Your task to perform on an android device: Go to display settings Image 0: 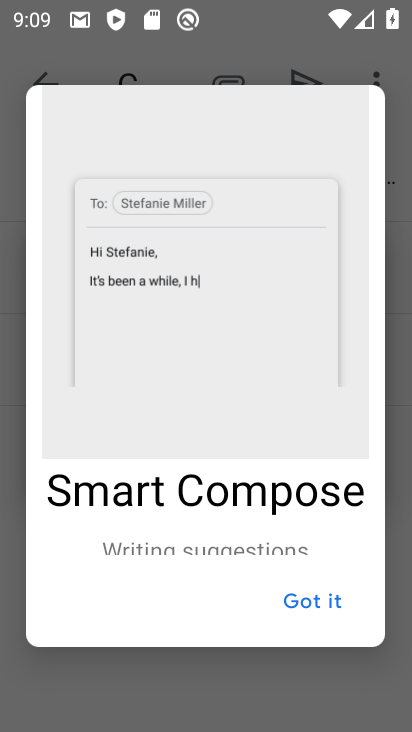
Step 0: press home button
Your task to perform on an android device: Go to display settings Image 1: 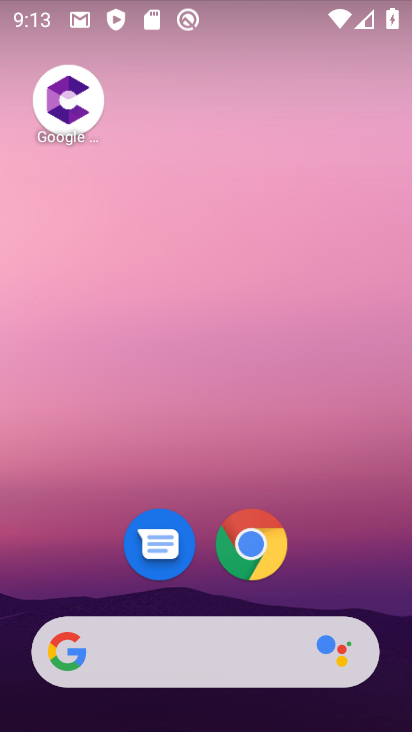
Step 1: drag from (358, 565) to (375, 224)
Your task to perform on an android device: Go to display settings Image 2: 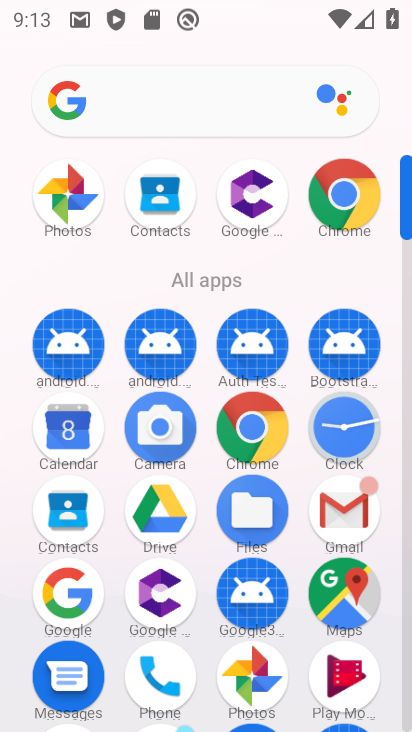
Step 2: click (406, 608)
Your task to perform on an android device: Go to display settings Image 3: 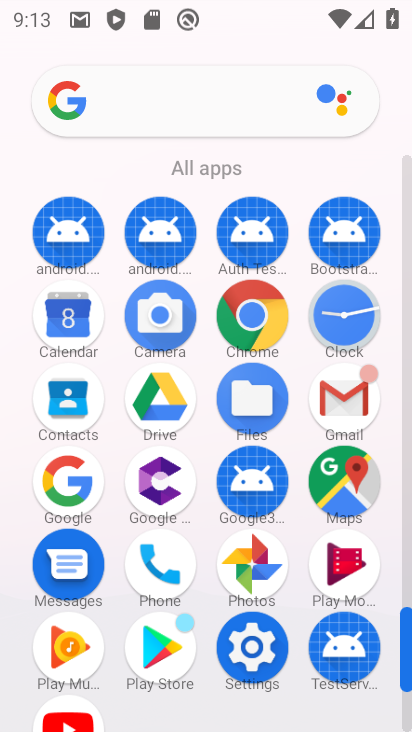
Step 3: click (406, 608)
Your task to perform on an android device: Go to display settings Image 4: 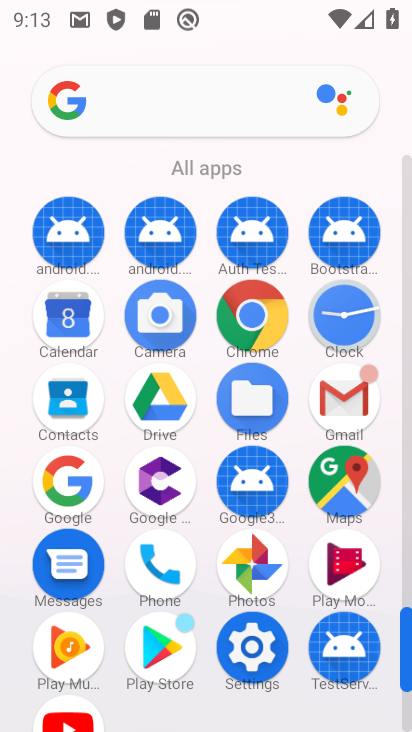
Step 4: click (257, 642)
Your task to perform on an android device: Go to display settings Image 5: 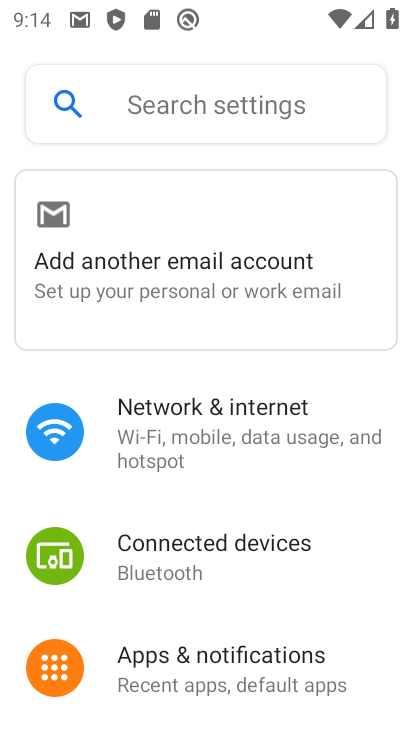
Step 5: drag from (134, 669) to (139, 476)
Your task to perform on an android device: Go to display settings Image 6: 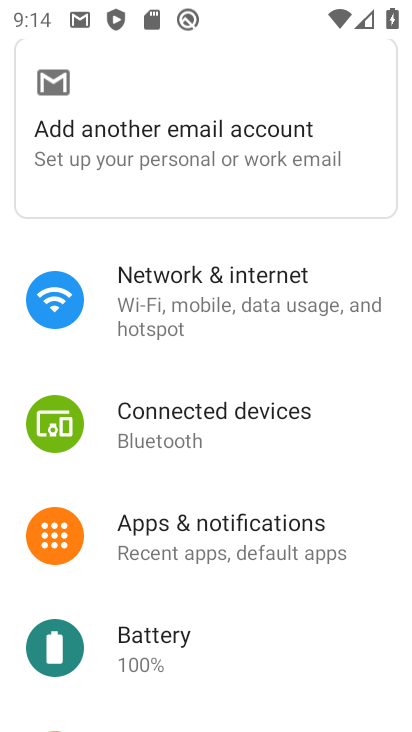
Step 6: drag from (189, 597) to (220, 438)
Your task to perform on an android device: Go to display settings Image 7: 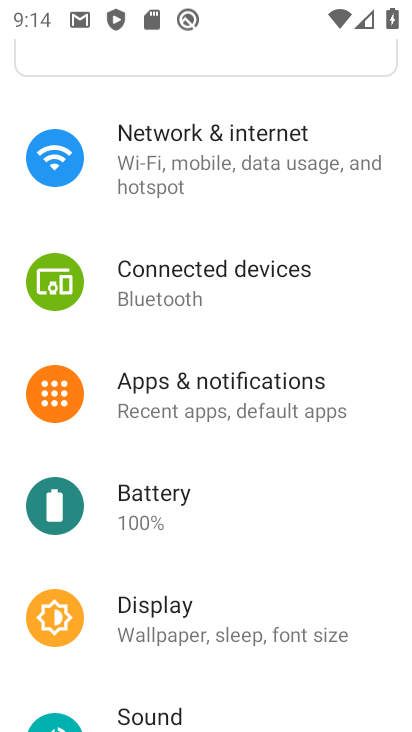
Step 7: click (174, 627)
Your task to perform on an android device: Go to display settings Image 8: 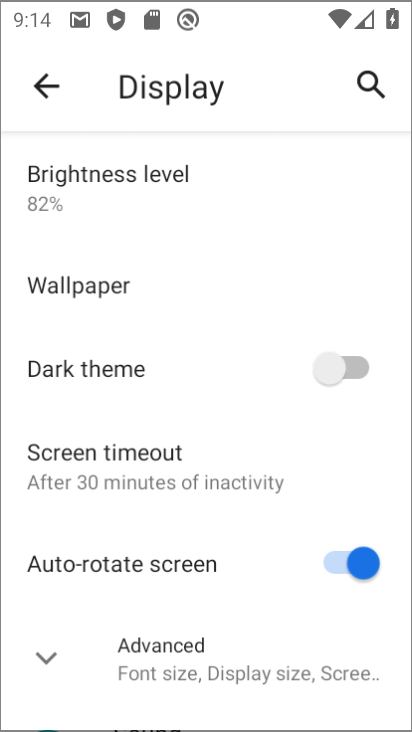
Step 8: task complete